Your task to perform on an android device: Go to location settings Image 0: 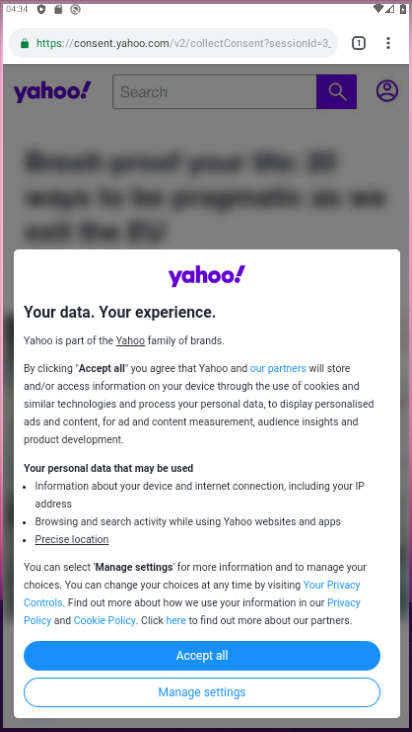
Step 0: press home button
Your task to perform on an android device: Go to location settings Image 1: 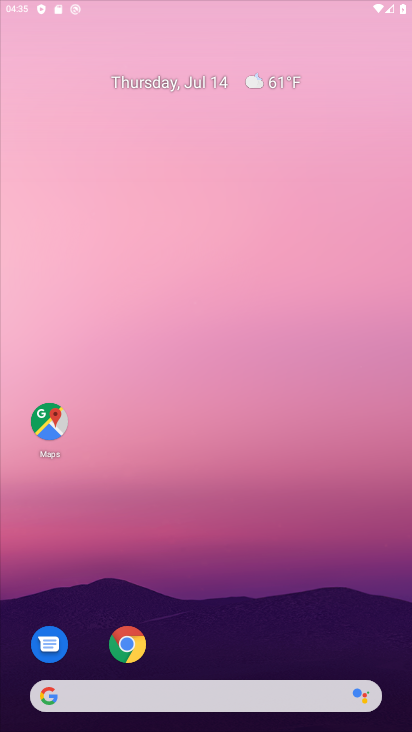
Step 1: drag from (253, 634) to (276, 110)
Your task to perform on an android device: Go to location settings Image 2: 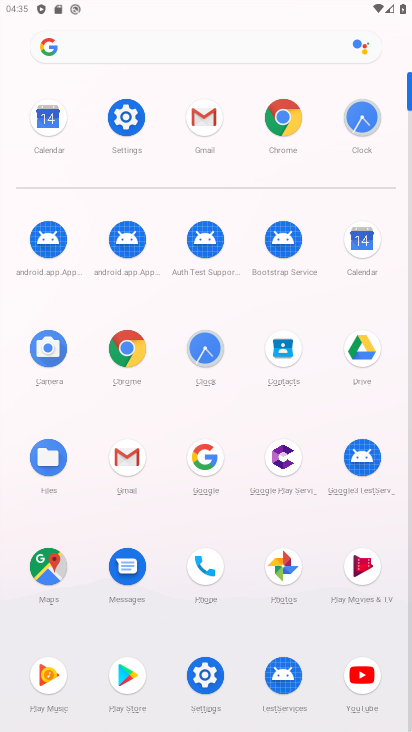
Step 2: click (124, 135)
Your task to perform on an android device: Go to location settings Image 3: 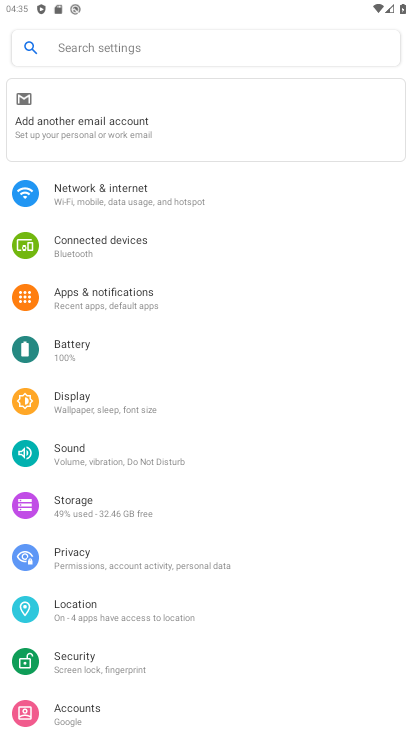
Step 3: click (86, 625)
Your task to perform on an android device: Go to location settings Image 4: 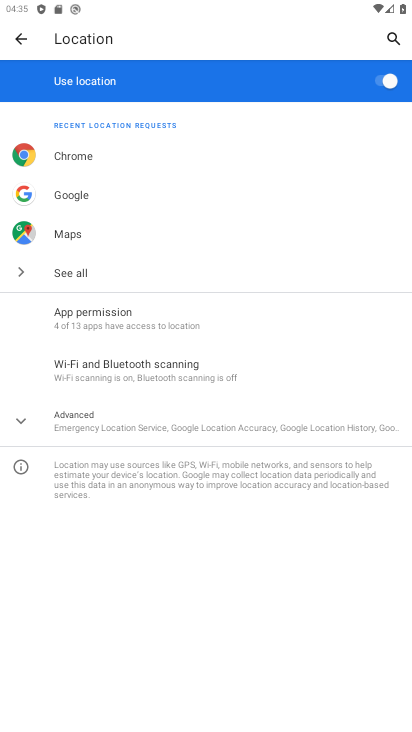
Step 4: task complete